Your task to perform on an android device: View the shopping cart on walmart. Image 0: 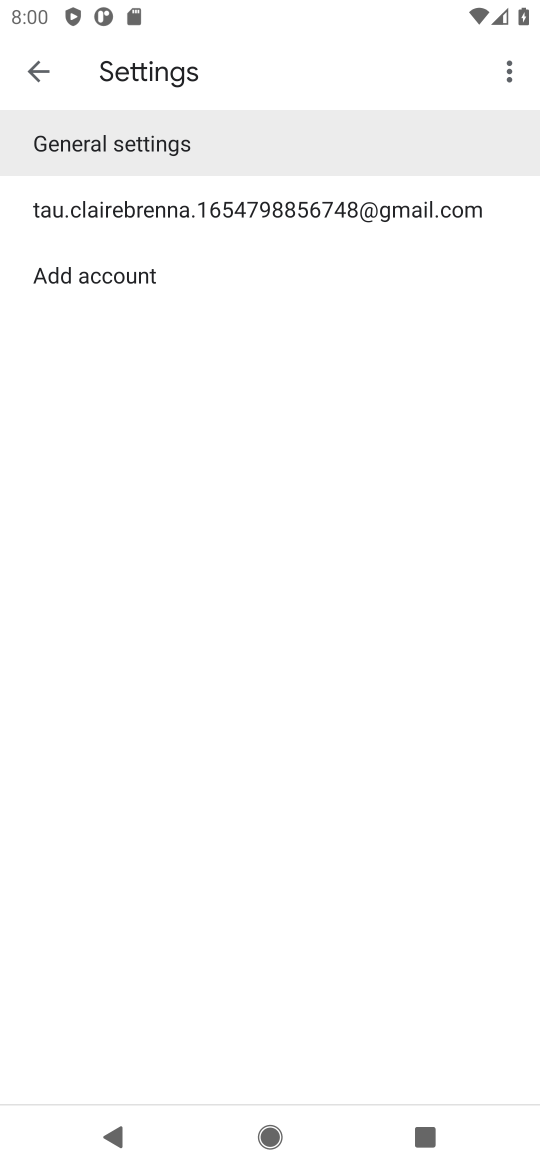
Step 0: press home button
Your task to perform on an android device: View the shopping cart on walmart. Image 1: 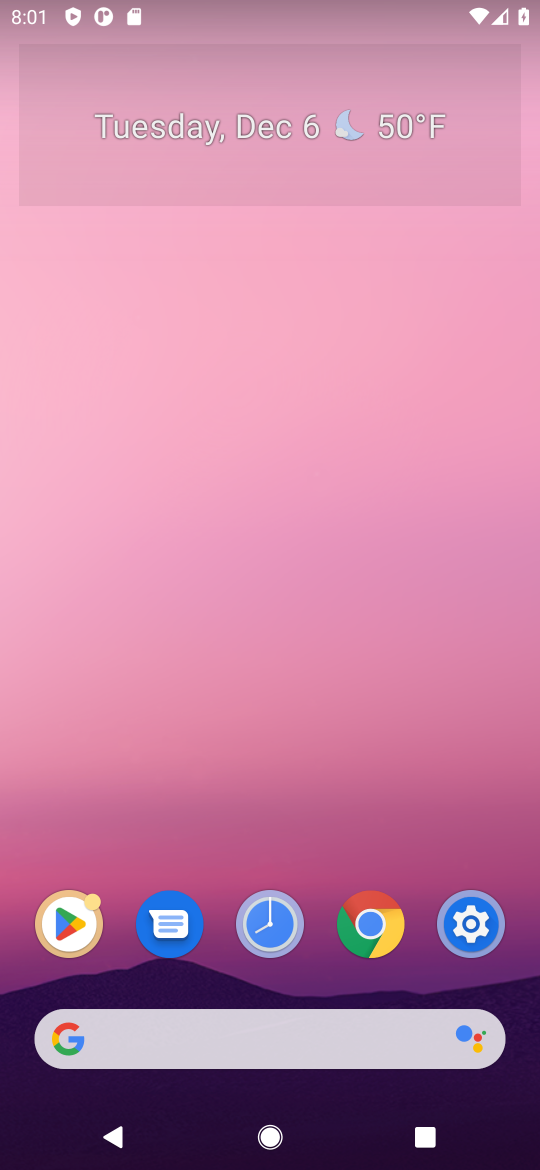
Step 1: click (353, 1034)
Your task to perform on an android device: View the shopping cart on walmart. Image 2: 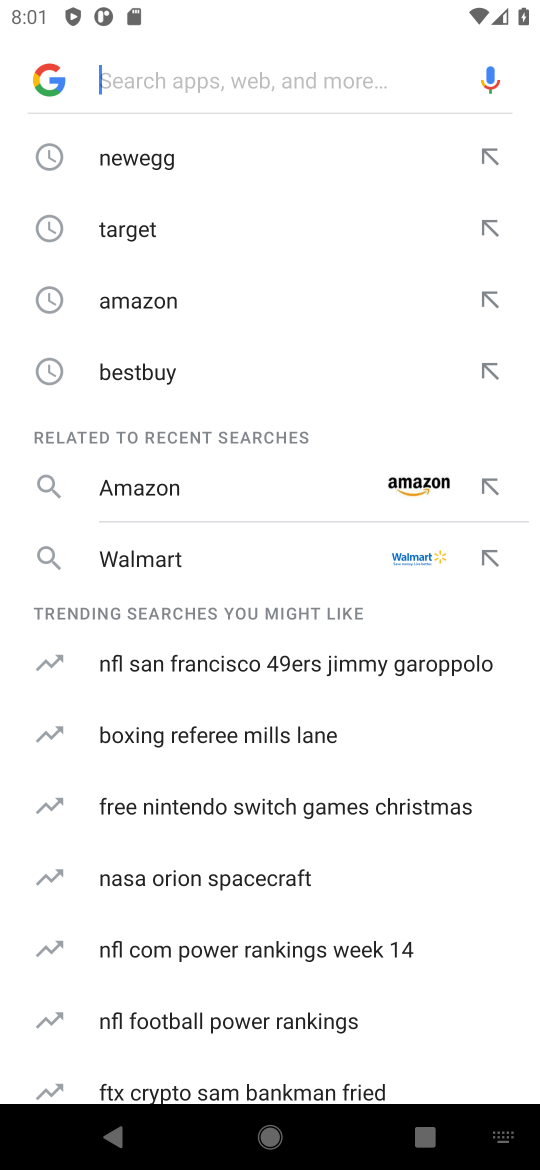
Step 2: type "walmart"
Your task to perform on an android device: View the shopping cart on walmart. Image 3: 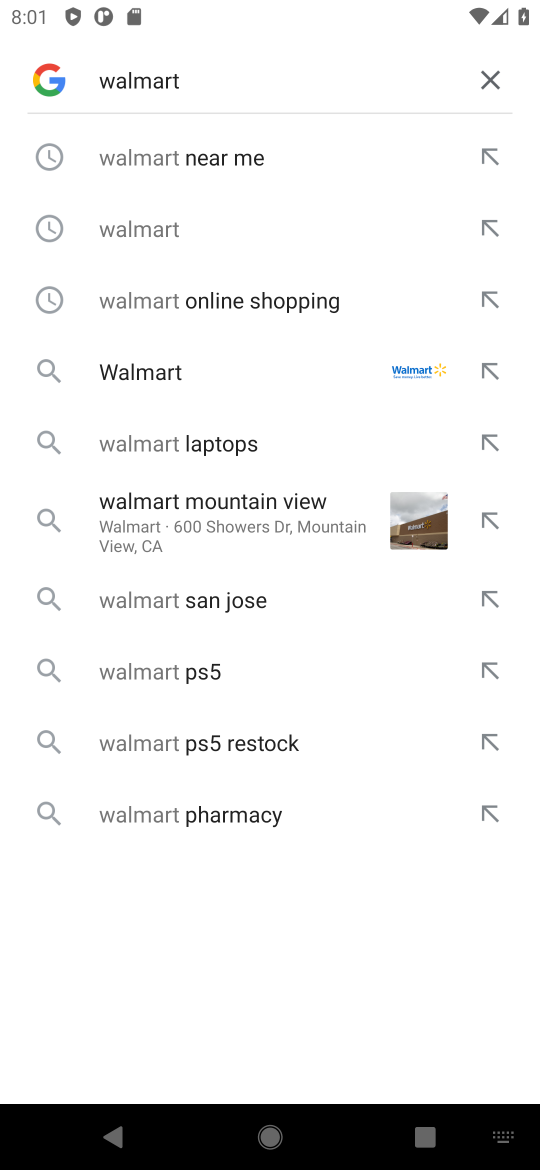
Step 3: click (106, 255)
Your task to perform on an android device: View the shopping cart on walmart. Image 4: 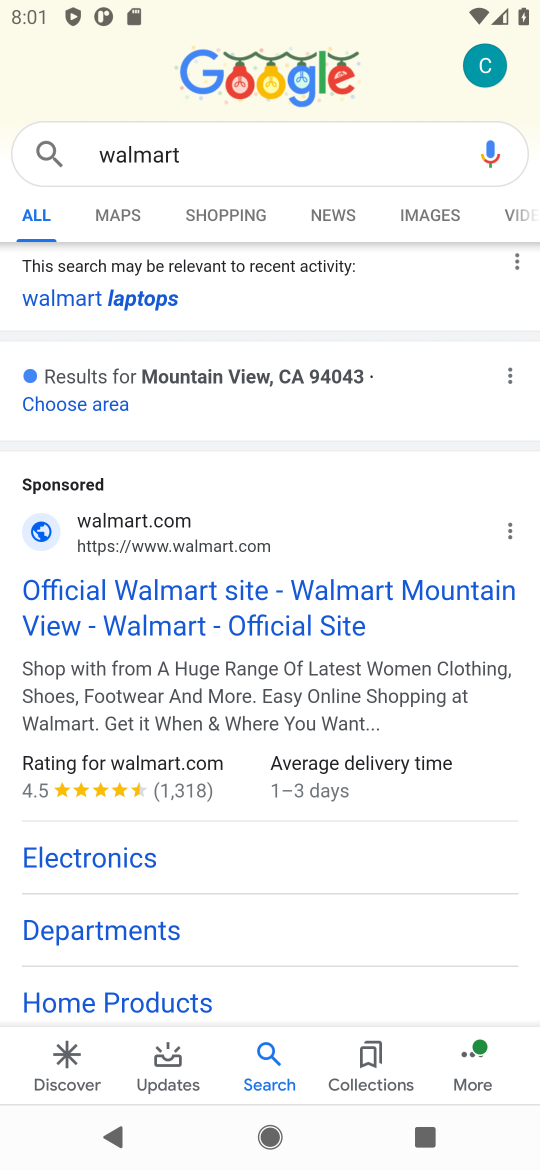
Step 4: click (116, 633)
Your task to perform on an android device: View the shopping cart on walmart. Image 5: 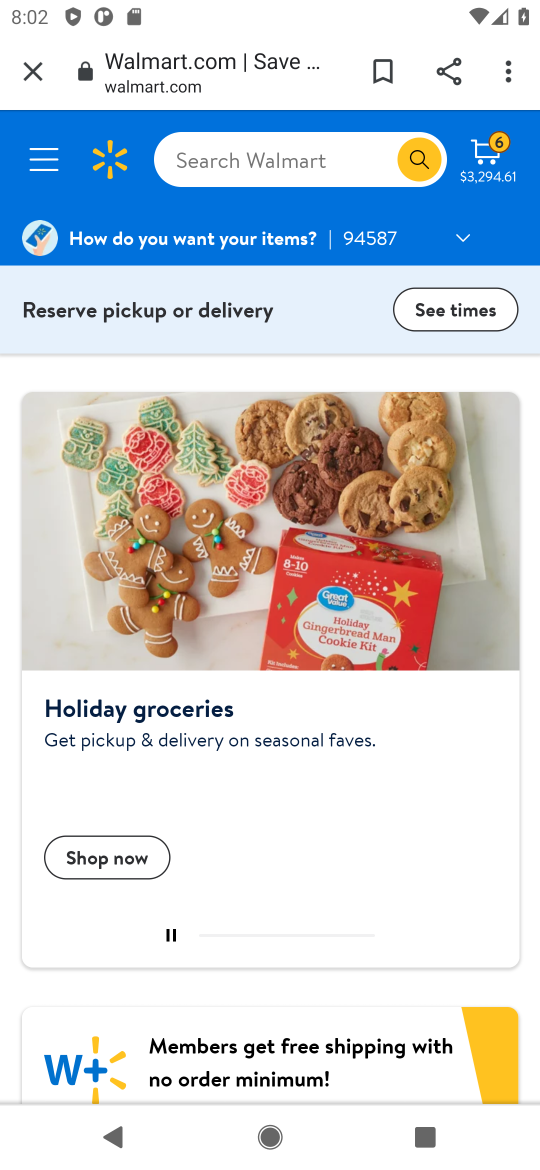
Step 5: click (249, 175)
Your task to perform on an android device: View the shopping cart on walmart. Image 6: 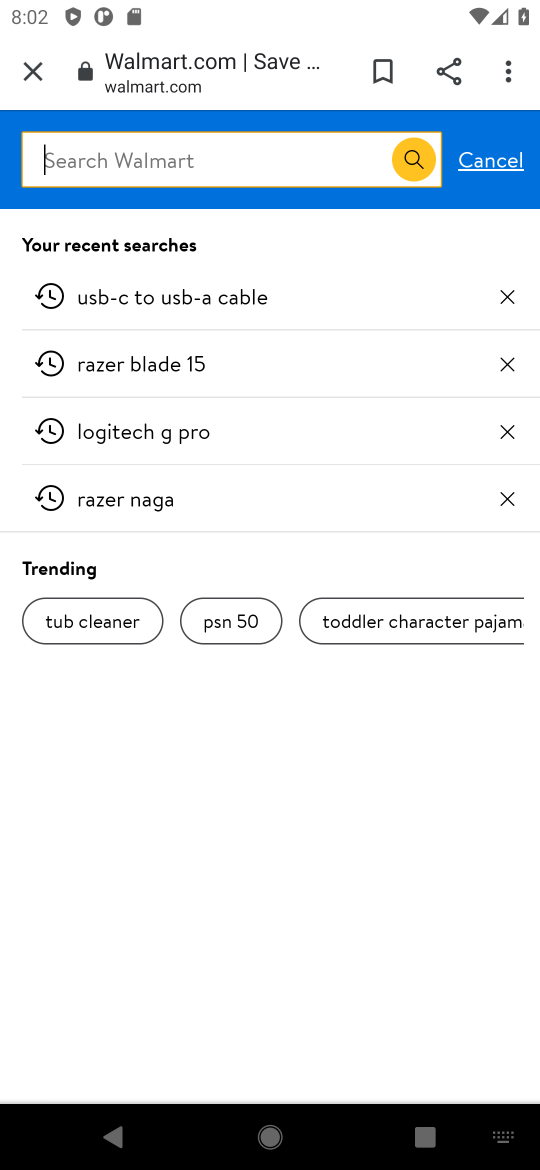
Step 6: click (467, 143)
Your task to perform on an android device: View the shopping cart on walmart. Image 7: 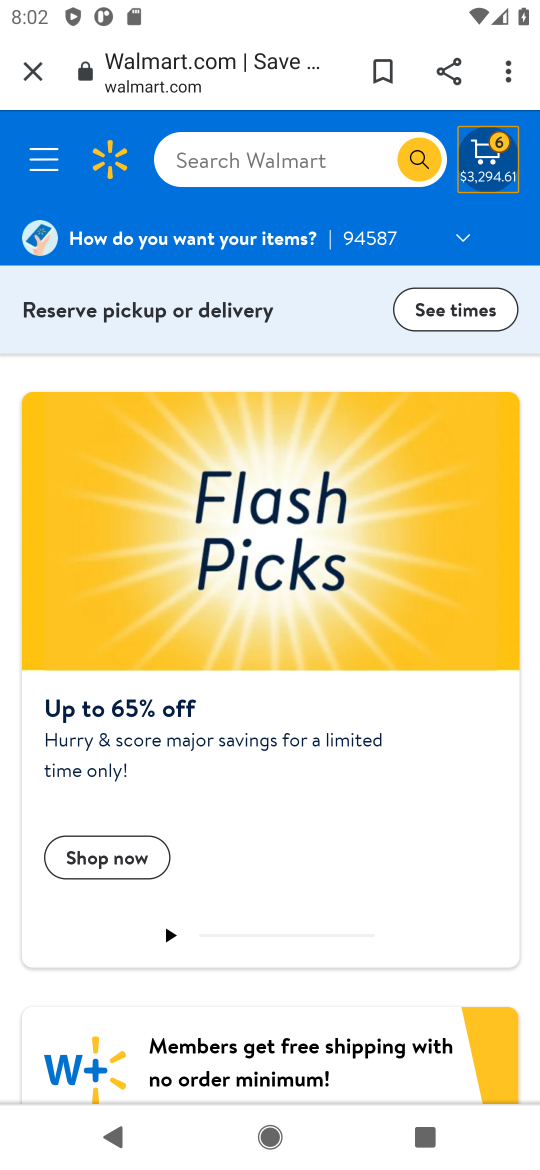
Step 7: click (512, 178)
Your task to perform on an android device: View the shopping cart on walmart. Image 8: 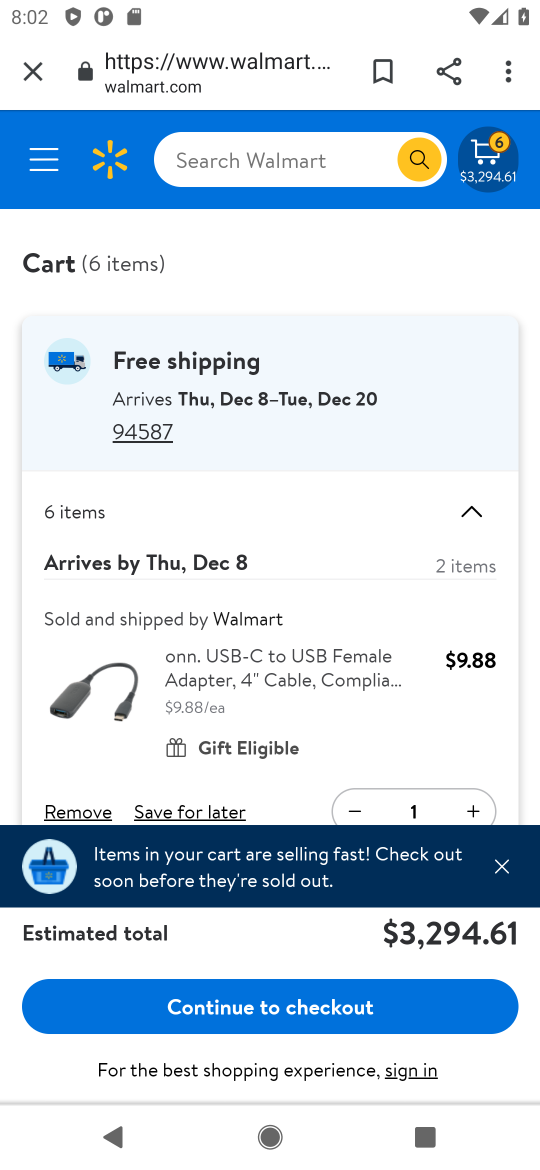
Step 8: task complete